Your task to perform on an android device: Check the weather Image 0: 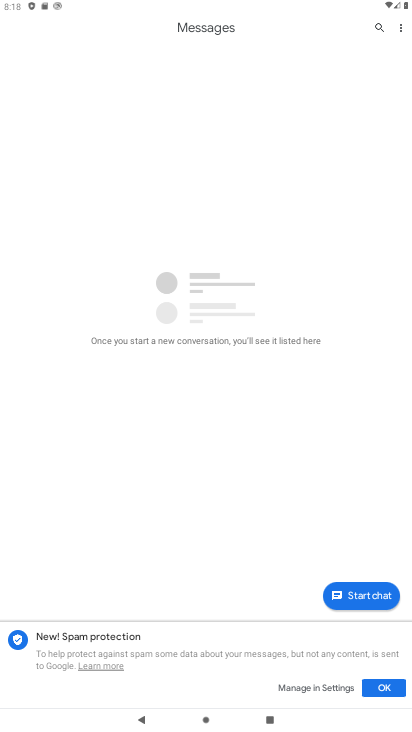
Step 0: press home button
Your task to perform on an android device: Check the weather Image 1: 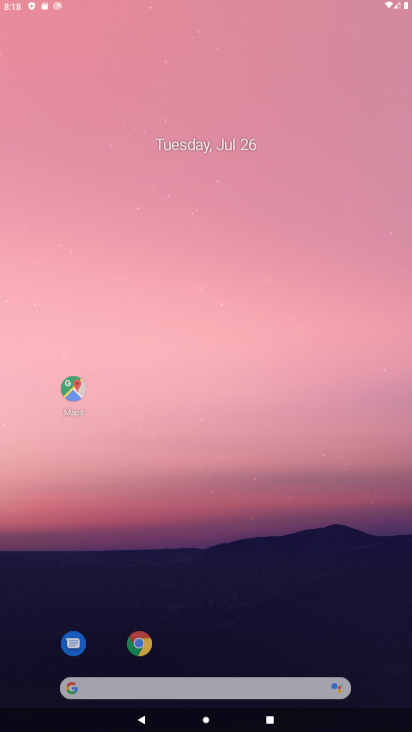
Step 1: drag from (210, 583) to (309, 31)
Your task to perform on an android device: Check the weather Image 2: 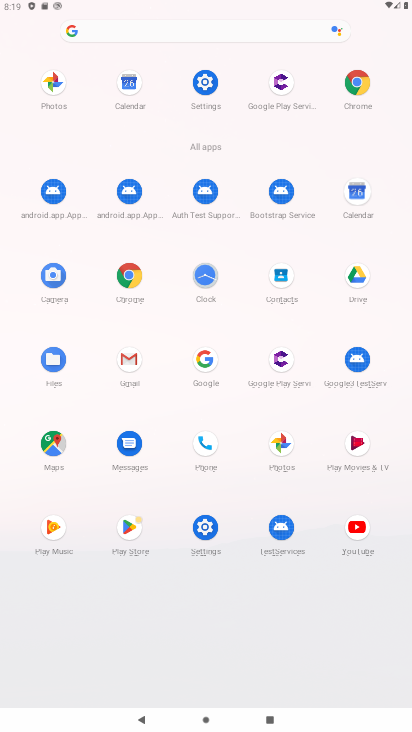
Step 2: click (118, 33)
Your task to perform on an android device: Check the weather Image 3: 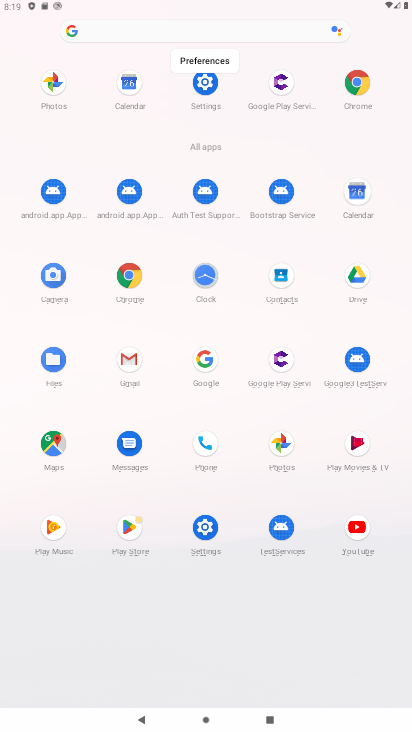
Step 3: click (152, 29)
Your task to perform on an android device: Check the weather Image 4: 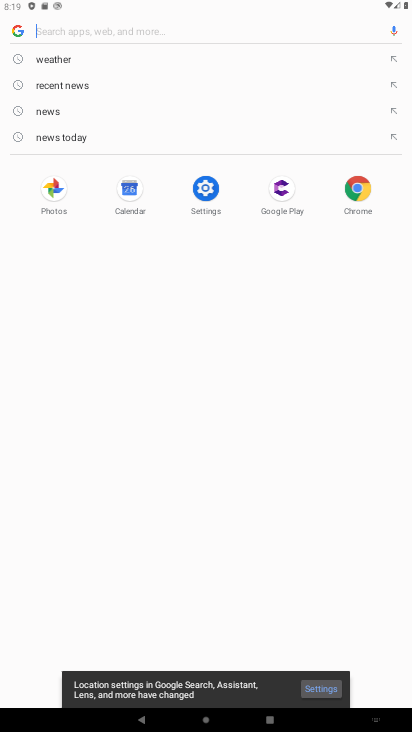
Step 4: click (58, 63)
Your task to perform on an android device: Check the weather Image 5: 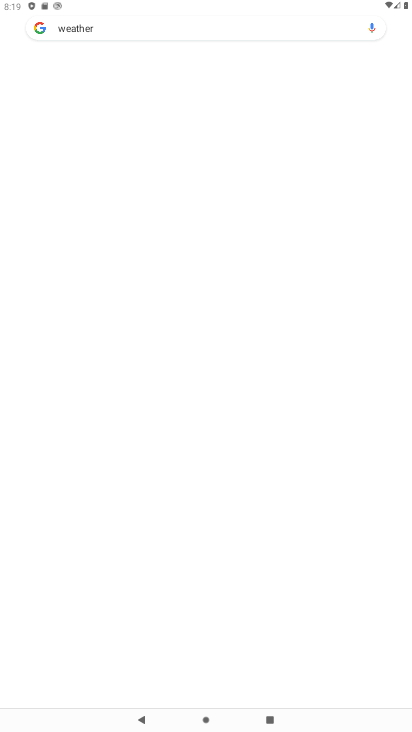
Step 5: task complete